Your task to perform on an android device: find snoozed emails in the gmail app Image 0: 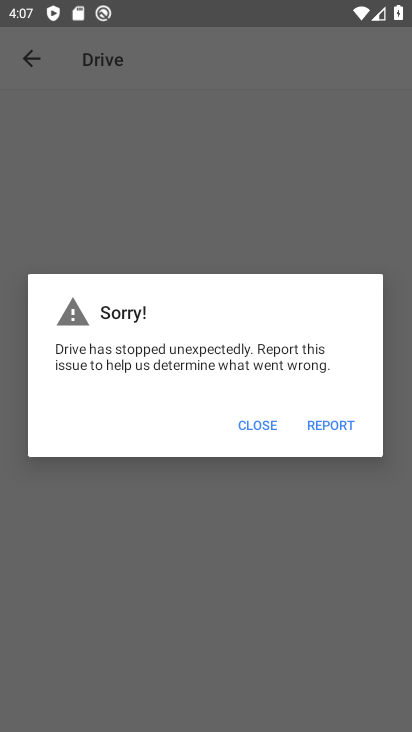
Step 0: click (312, 126)
Your task to perform on an android device: find snoozed emails in the gmail app Image 1: 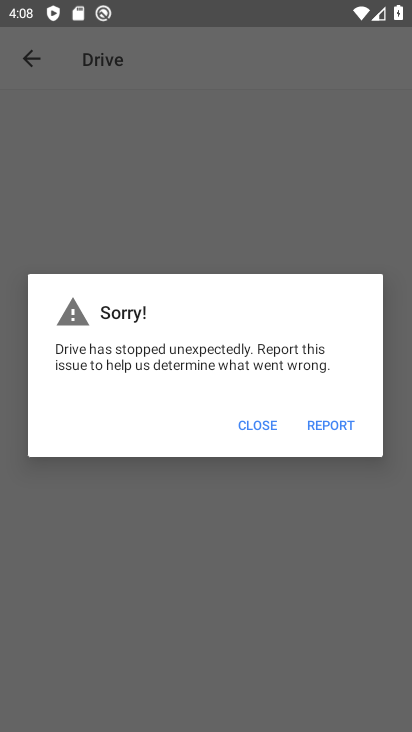
Step 1: click (304, 431)
Your task to perform on an android device: find snoozed emails in the gmail app Image 2: 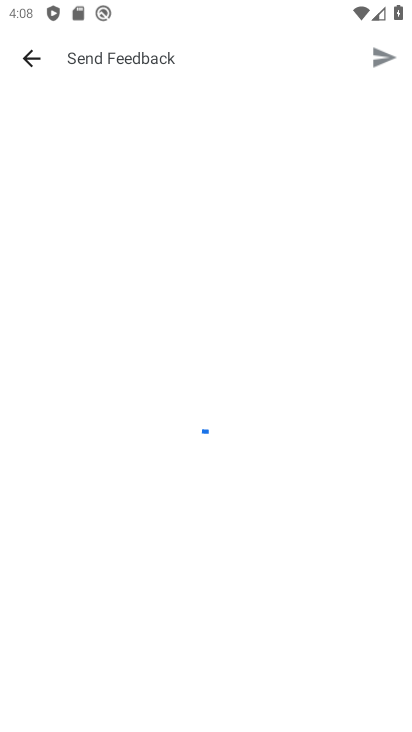
Step 2: press home button
Your task to perform on an android device: find snoozed emails in the gmail app Image 3: 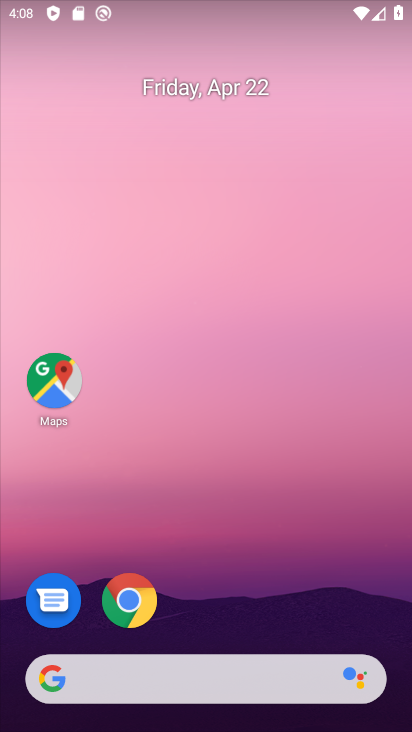
Step 3: press home button
Your task to perform on an android device: find snoozed emails in the gmail app Image 4: 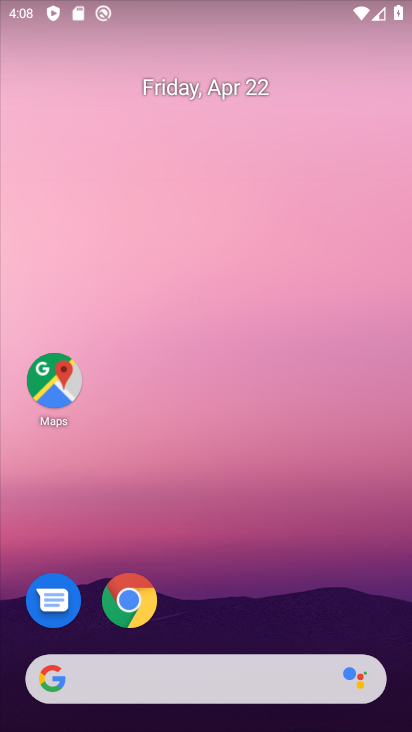
Step 4: drag from (297, 722) to (365, 220)
Your task to perform on an android device: find snoozed emails in the gmail app Image 5: 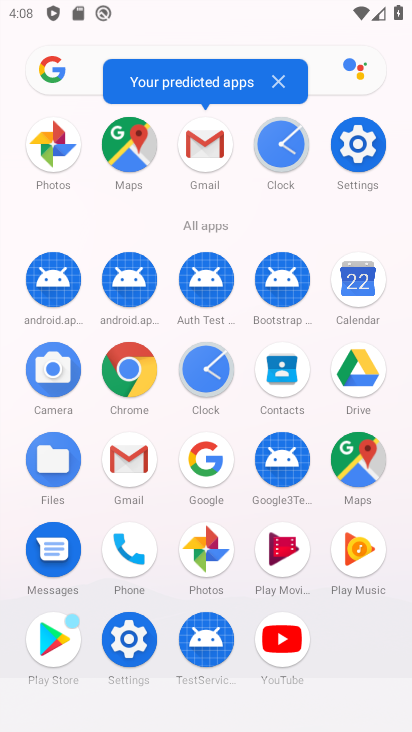
Step 5: click (195, 159)
Your task to perform on an android device: find snoozed emails in the gmail app Image 6: 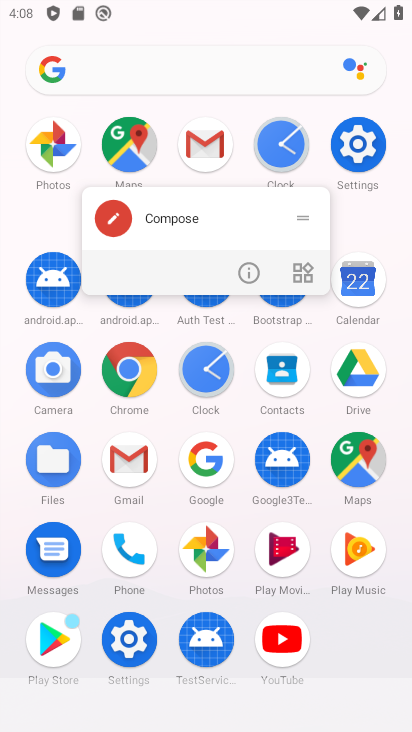
Step 6: click (209, 148)
Your task to perform on an android device: find snoozed emails in the gmail app Image 7: 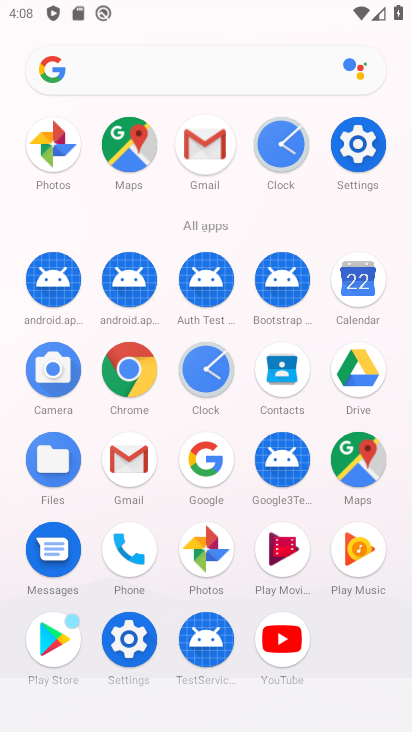
Step 7: click (209, 148)
Your task to perform on an android device: find snoozed emails in the gmail app Image 8: 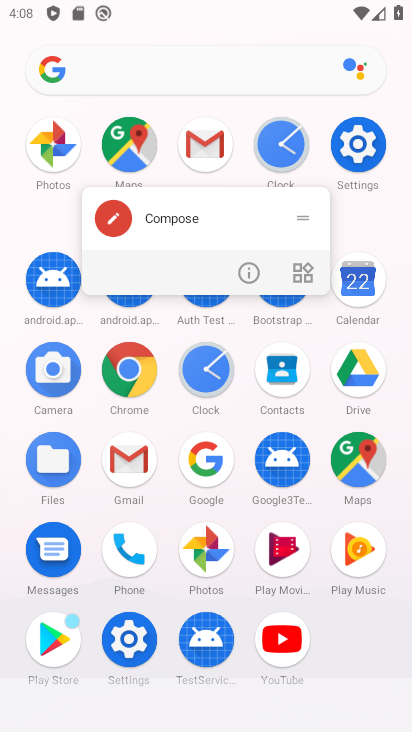
Step 8: click (209, 148)
Your task to perform on an android device: find snoozed emails in the gmail app Image 9: 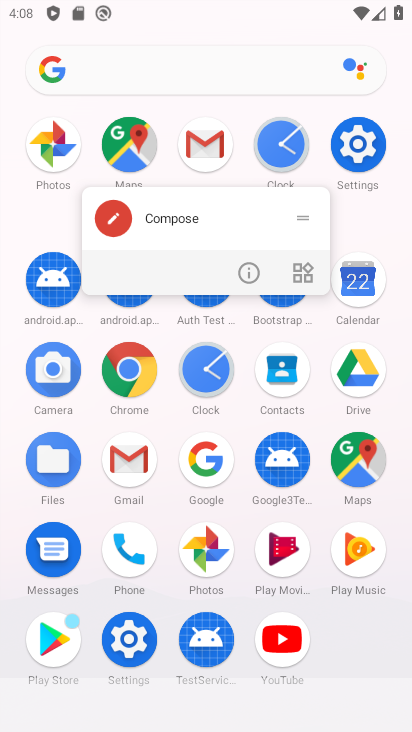
Step 9: click (209, 148)
Your task to perform on an android device: find snoozed emails in the gmail app Image 10: 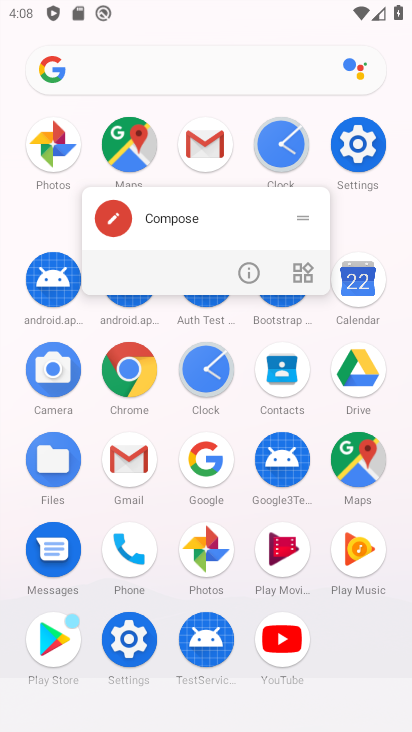
Step 10: click (209, 148)
Your task to perform on an android device: find snoozed emails in the gmail app Image 11: 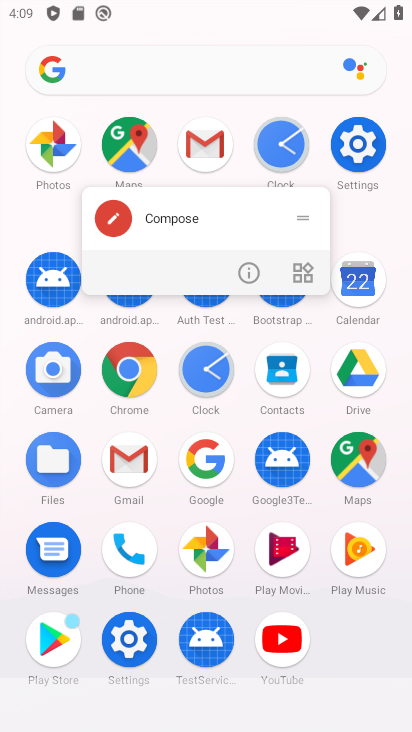
Step 11: click (200, 151)
Your task to perform on an android device: find snoozed emails in the gmail app Image 12: 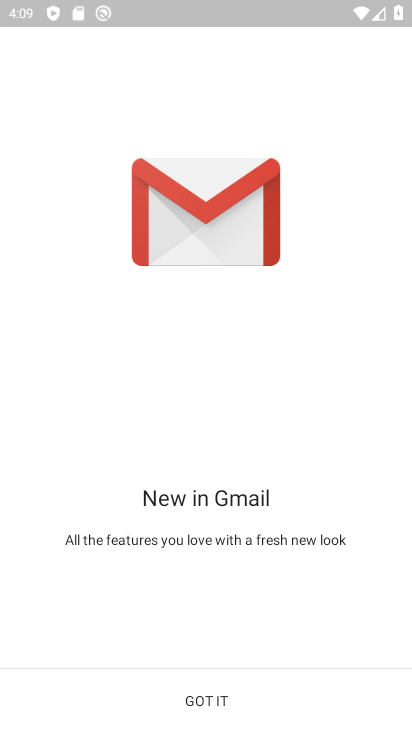
Step 12: click (259, 685)
Your task to perform on an android device: find snoozed emails in the gmail app Image 13: 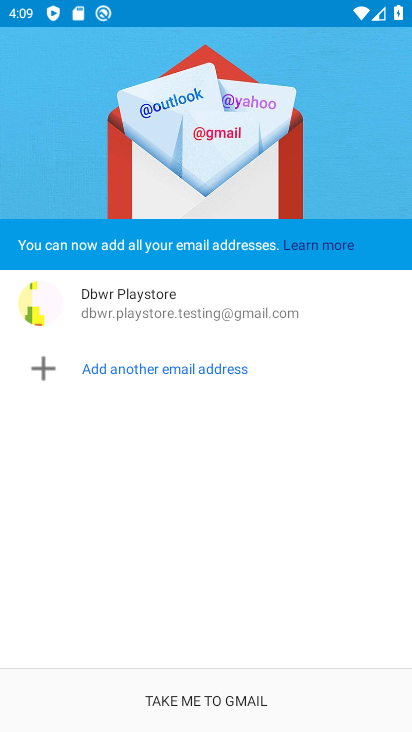
Step 13: click (184, 696)
Your task to perform on an android device: find snoozed emails in the gmail app Image 14: 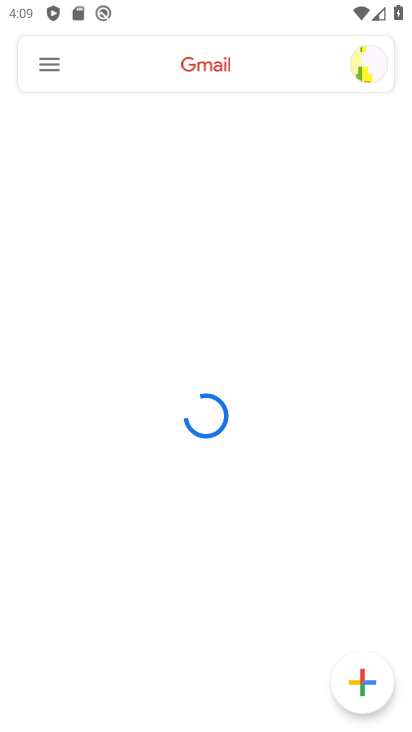
Step 14: click (50, 58)
Your task to perform on an android device: find snoozed emails in the gmail app Image 15: 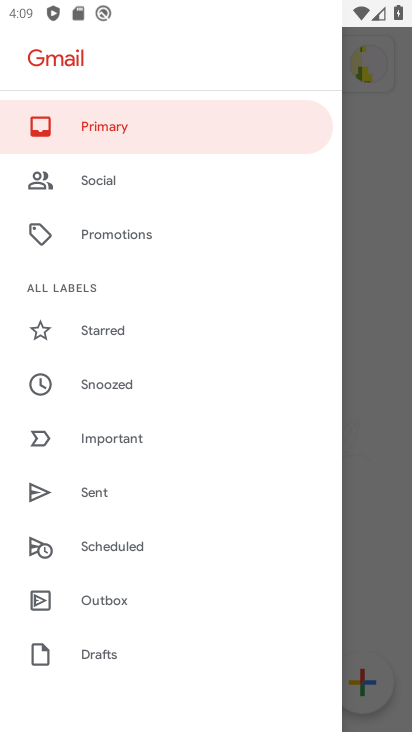
Step 15: drag from (136, 652) to (204, 183)
Your task to perform on an android device: find snoozed emails in the gmail app Image 16: 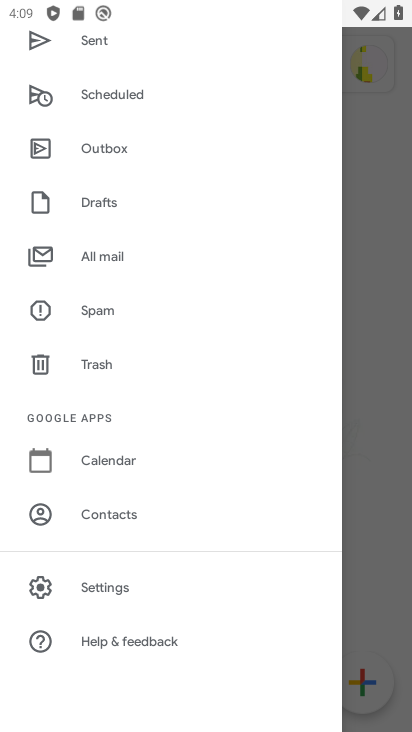
Step 16: drag from (128, 178) to (122, 571)
Your task to perform on an android device: find snoozed emails in the gmail app Image 17: 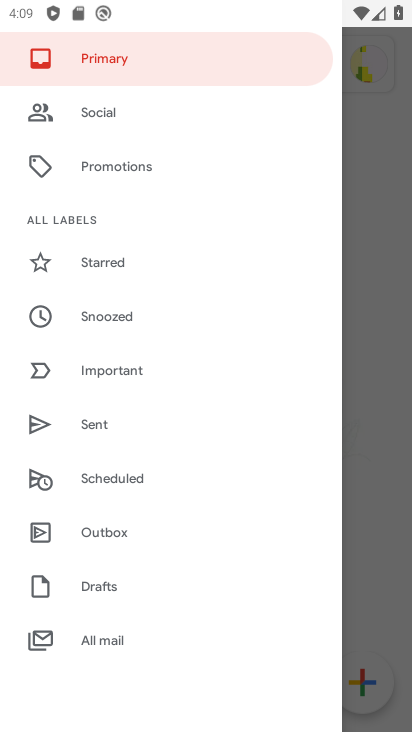
Step 17: click (121, 322)
Your task to perform on an android device: find snoozed emails in the gmail app Image 18: 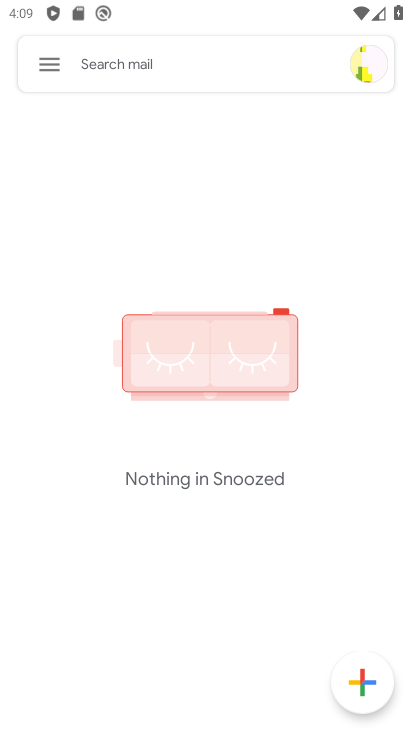
Step 18: task complete